Your task to perform on an android device: toggle priority inbox in the gmail app Image 0: 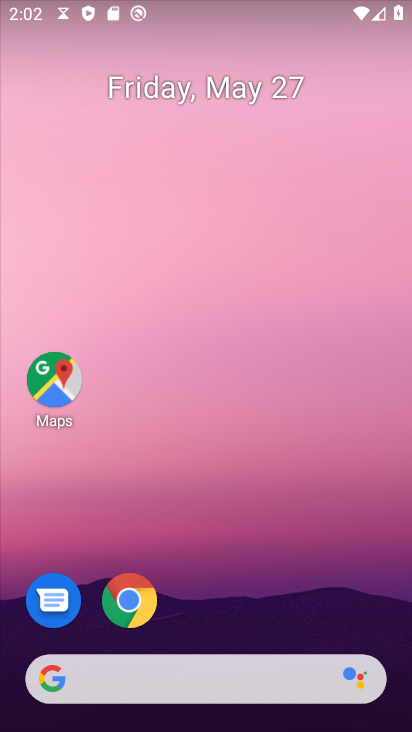
Step 0: drag from (215, 564) to (218, 21)
Your task to perform on an android device: toggle priority inbox in the gmail app Image 1: 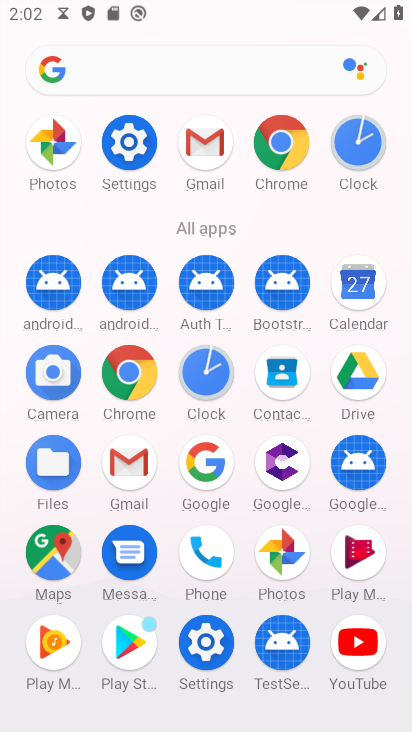
Step 1: drag from (11, 425) to (7, 204)
Your task to perform on an android device: toggle priority inbox in the gmail app Image 2: 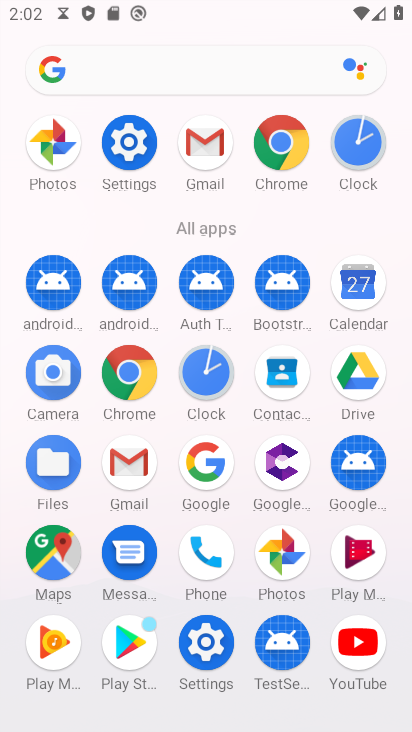
Step 2: click (126, 457)
Your task to perform on an android device: toggle priority inbox in the gmail app Image 3: 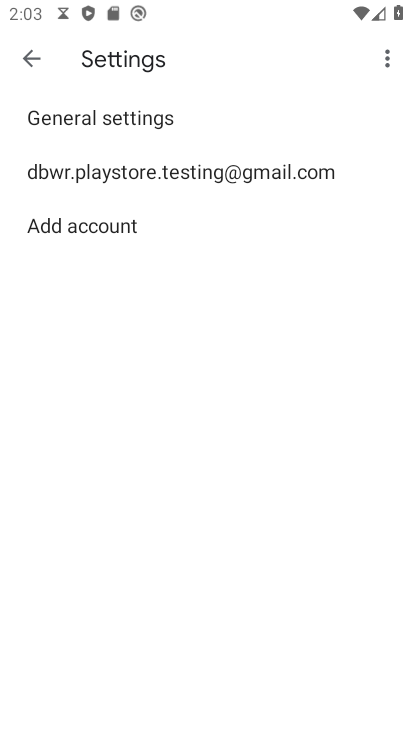
Step 3: click (191, 170)
Your task to perform on an android device: toggle priority inbox in the gmail app Image 4: 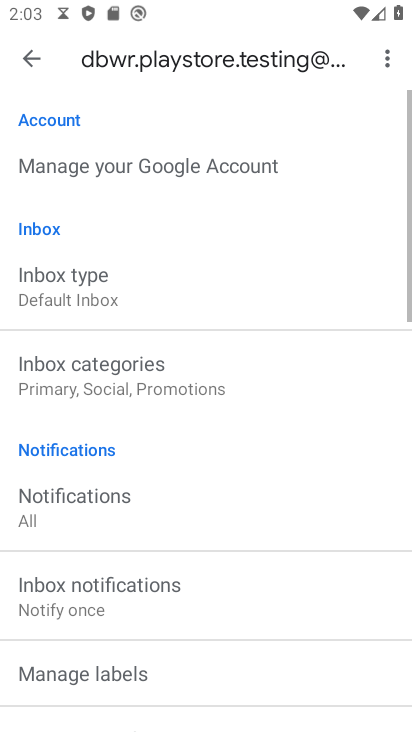
Step 4: click (117, 300)
Your task to perform on an android device: toggle priority inbox in the gmail app Image 5: 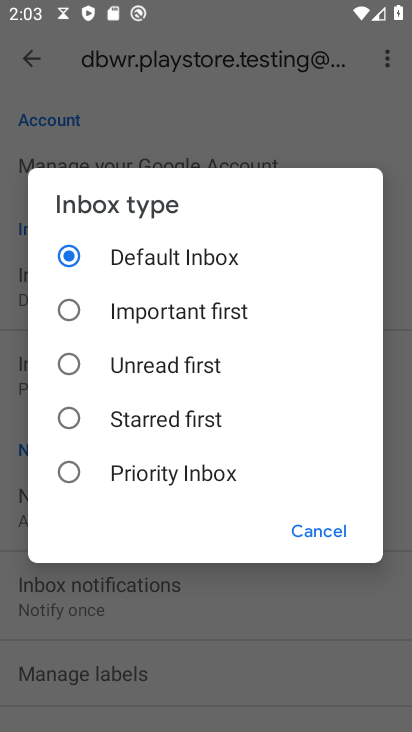
Step 5: click (129, 472)
Your task to perform on an android device: toggle priority inbox in the gmail app Image 6: 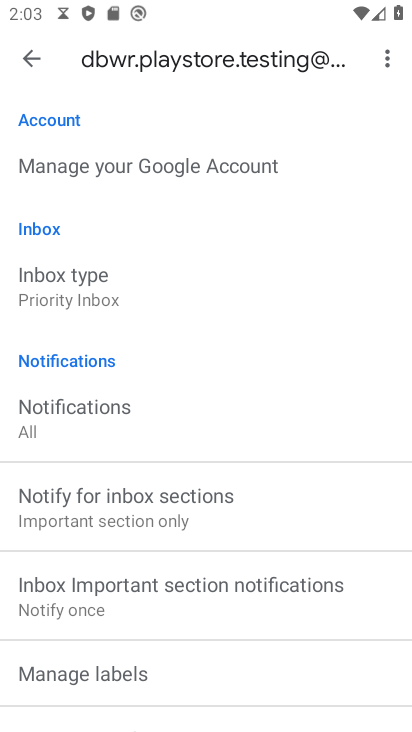
Step 6: task complete